Your task to perform on an android device: Open Google Maps and go to "Timeline" Image 0: 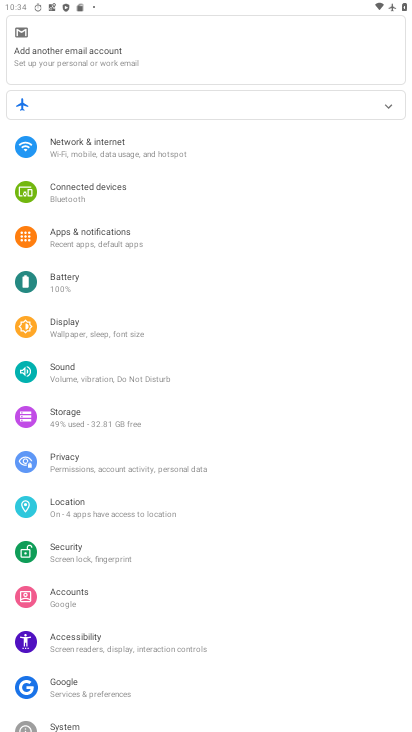
Step 0: press home button
Your task to perform on an android device: Open Google Maps and go to "Timeline" Image 1: 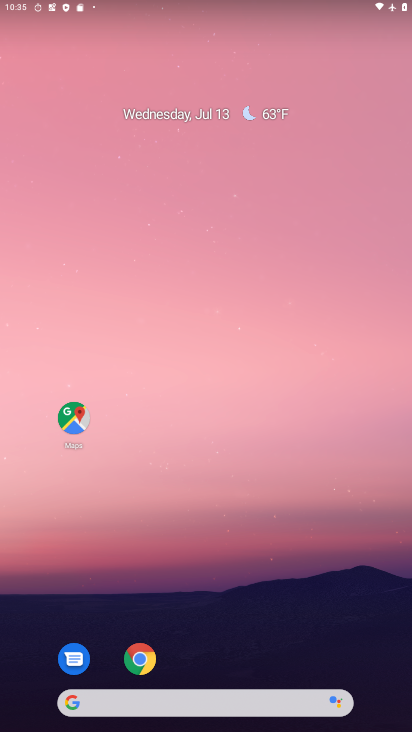
Step 1: drag from (255, 609) to (326, 159)
Your task to perform on an android device: Open Google Maps and go to "Timeline" Image 2: 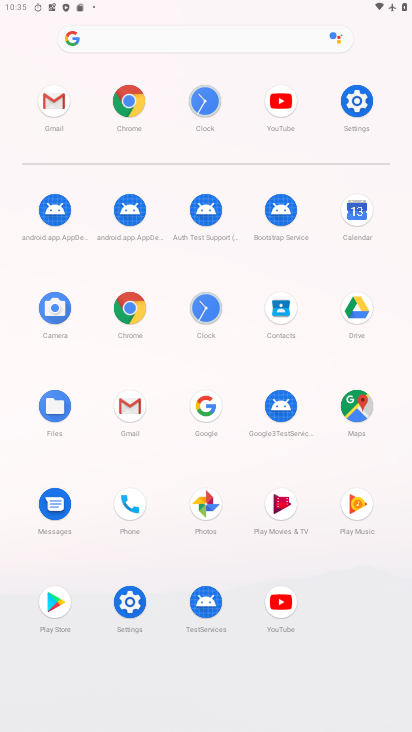
Step 2: click (360, 408)
Your task to perform on an android device: Open Google Maps and go to "Timeline" Image 3: 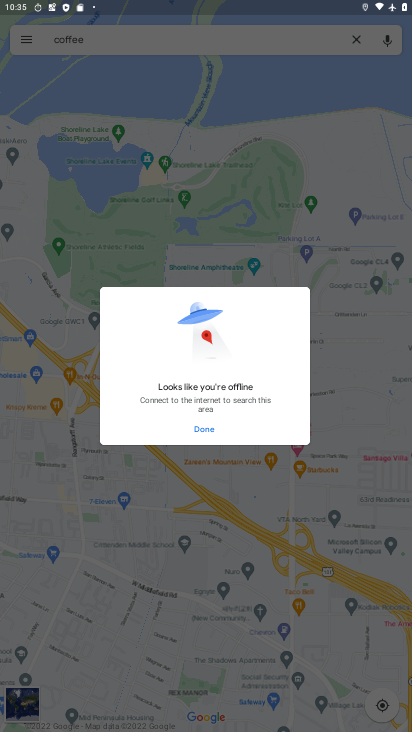
Step 3: click (200, 432)
Your task to perform on an android device: Open Google Maps and go to "Timeline" Image 4: 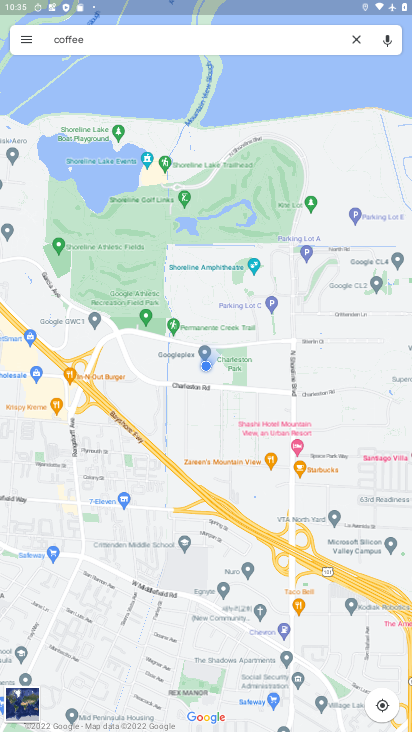
Step 4: click (30, 47)
Your task to perform on an android device: Open Google Maps and go to "Timeline" Image 5: 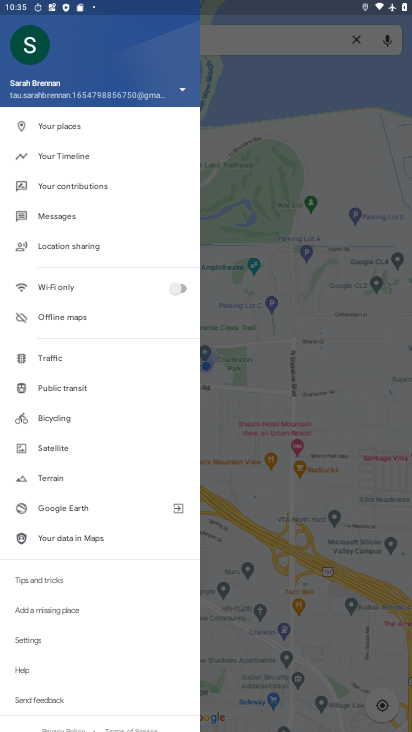
Step 5: click (85, 150)
Your task to perform on an android device: Open Google Maps and go to "Timeline" Image 6: 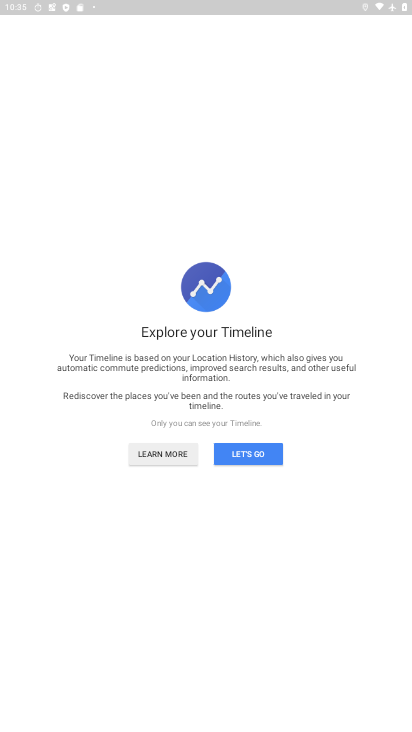
Step 6: click (237, 450)
Your task to perform on an android device: Open Google Maps and go to "Timeline" Image 7: 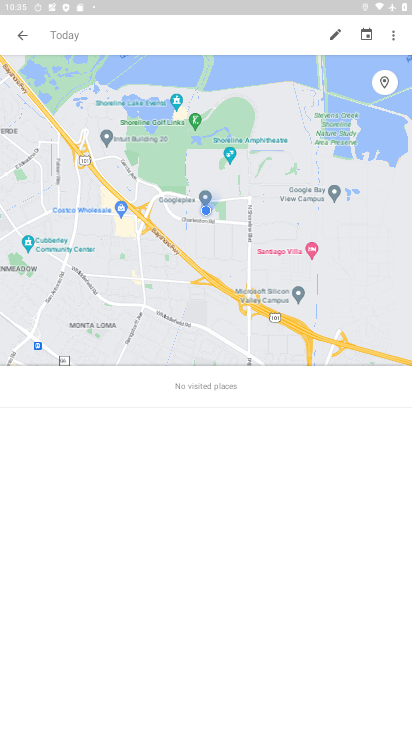
Step 7: task complete